Your task to perform on an android device: Go to CNN.com Image 0: 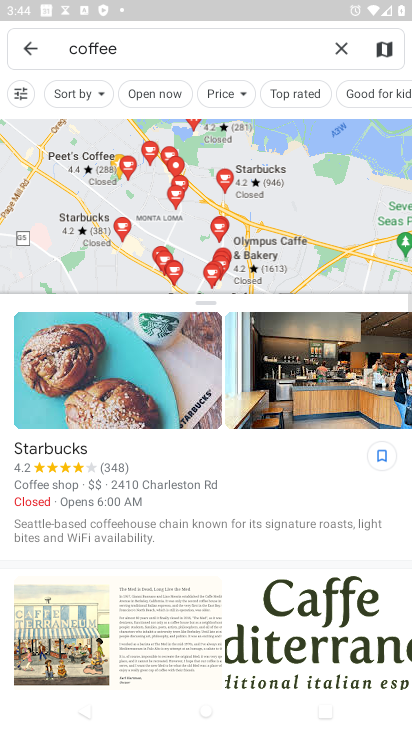
Step 0: press home button
Your task to perform on an android device: Go to CNN.com Image 1: 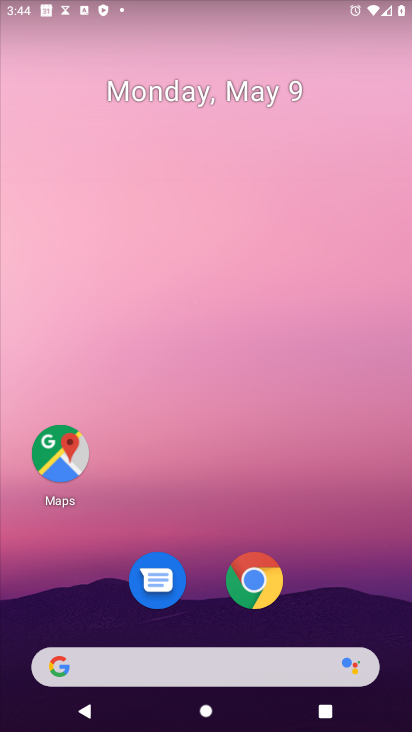
Step 1: click (256, 568)
Your task to perform on an android device: Go to CNN.com Image 2: 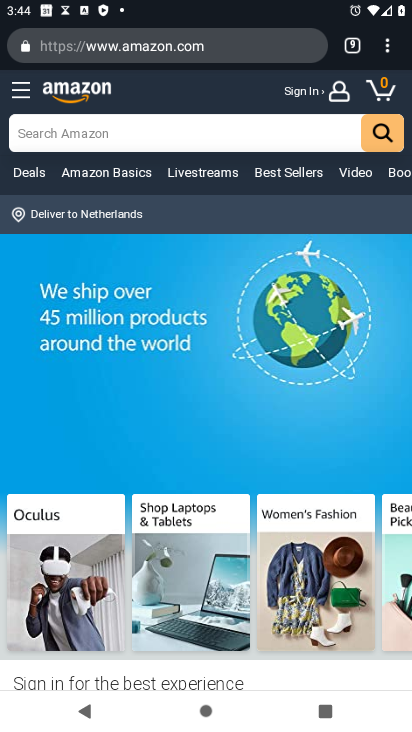
Step 2: click (360, 43)
Your task to perform on an android device: Go to CNN.com Image 3: 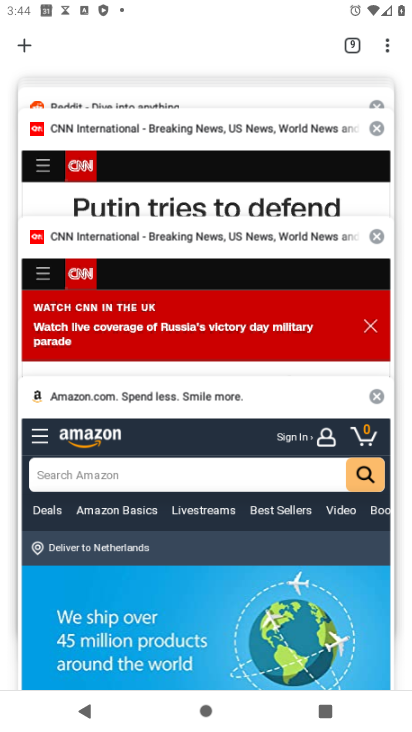
Step 3: click (83, 133)
Your task to perform on an android device: Go to CNN.com Image 4: 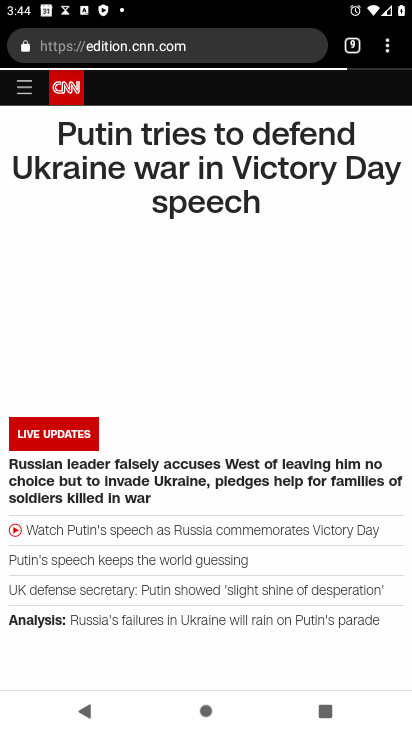
Step 4: task complete